Your task to perform on an android device: What's the weather today? Image 0: 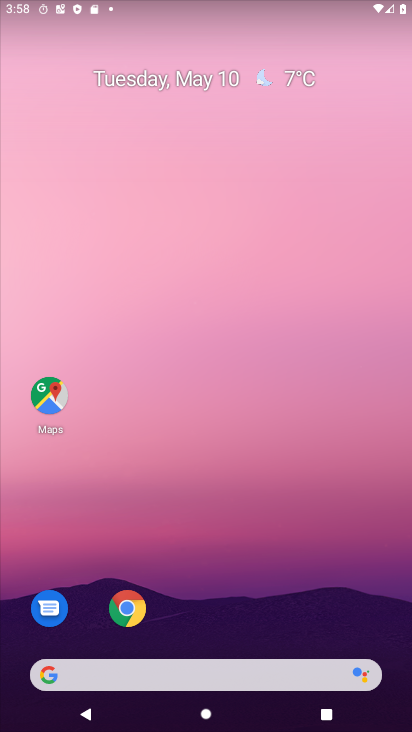
Step 0: click (299, 83)
Your task to perform on an android device: What's the weather today? Image 1: 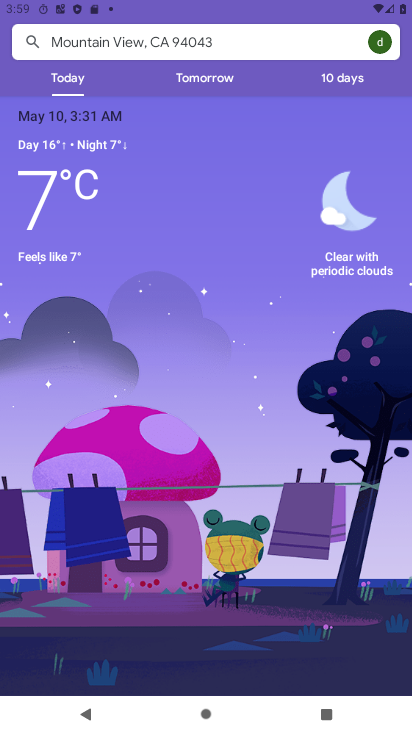
Step 1: task complete